Your task to perform on an android device: Open Chrome and go to settings Image 0: 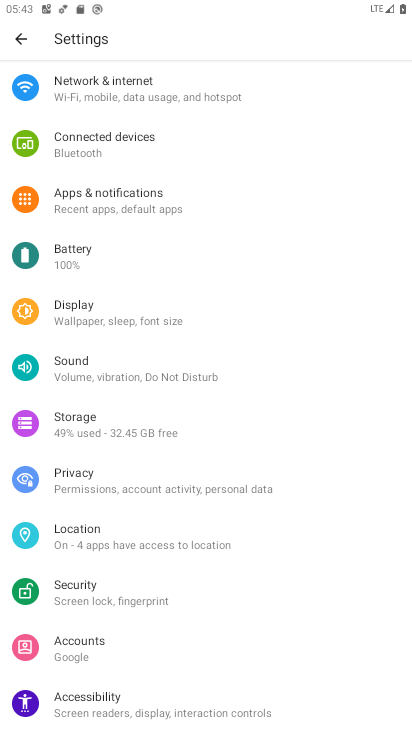
Step 0: press home button
Your task to perform on an android device: Open Chrome and go to settings Image 1: 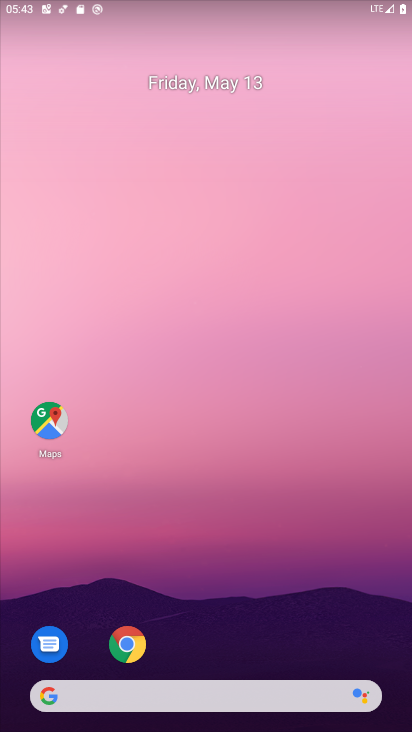
Step 1: click (130, 655)
Your task to perform on an android device: Open Chrome and go to settings Image 2: 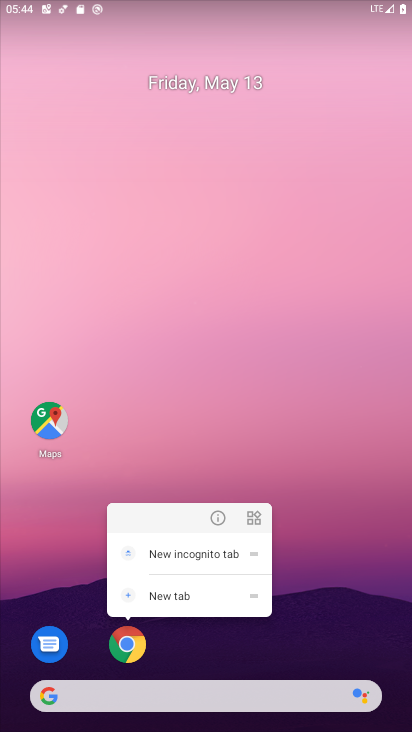
Step 2: click (134, 641)
Your task to perform on an android device: Open Chrome and go to settings Image 3: 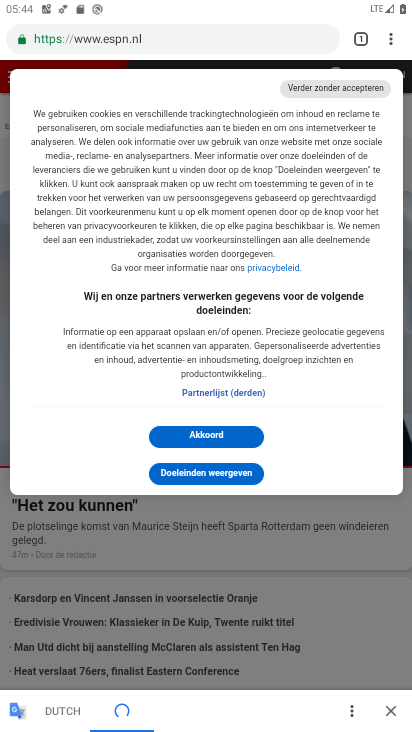
Step 3: click (391, 38)
Your task to perform on an android device: Open Chrome and go to settings Image 4: 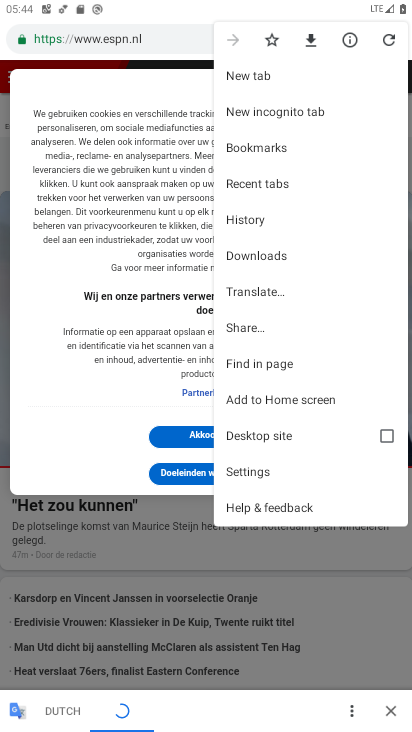
Step 4: click (255, 475)
Your task to perform on an android device: Open Chrome and go to settings Image 5: 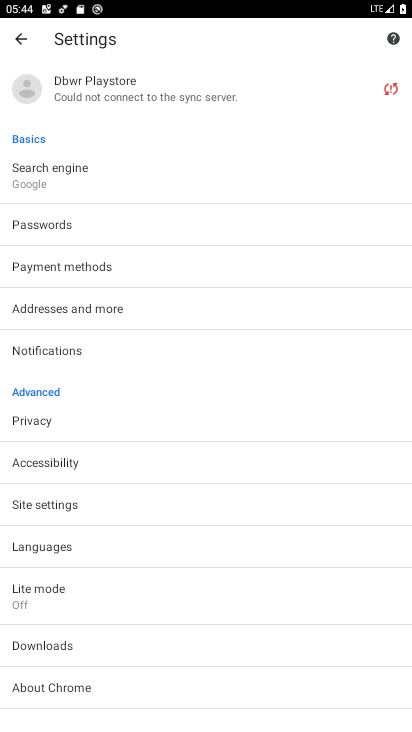
Step 5: task complete